Your task to perform on an android device: Show me popular videos on Youtube Image 0: 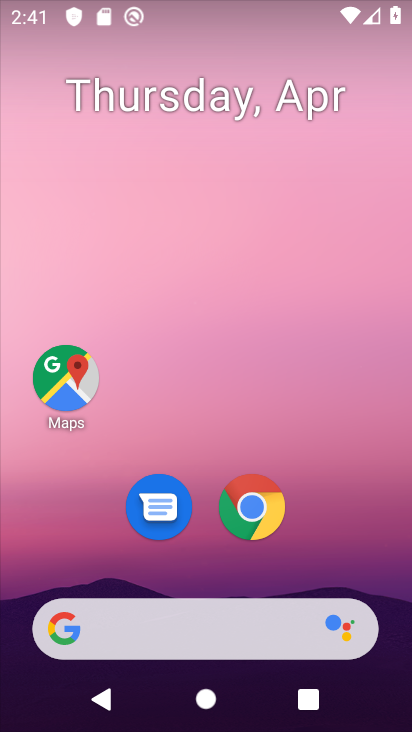
Step 0: drag from (375, 416) to (407, 117)
Your task to perform on an android device: Show me popular videos on Youtube Image 1: 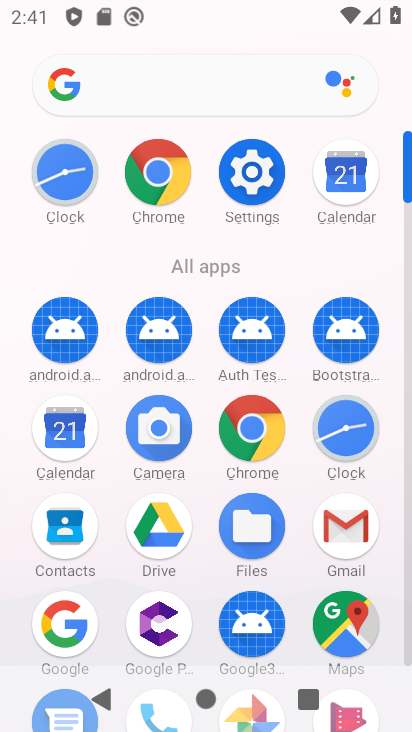
Step 1: drag from (308, 574) to (286, 223)
Your task to perform on an android device: Show me popular videos on Youtube Image 2: 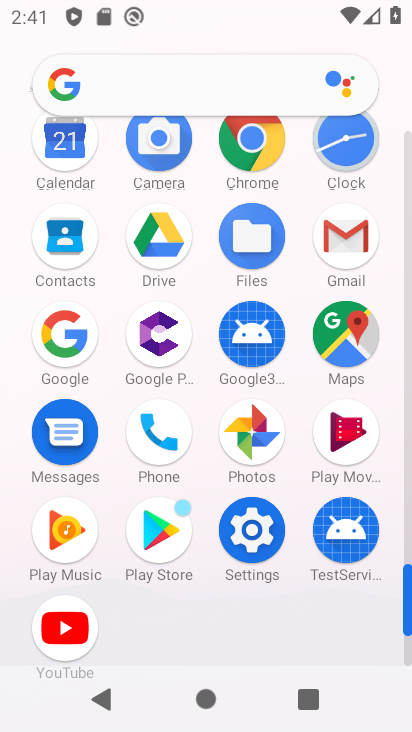
Step 2: click (68, 617)
Your task to perform on an android device: Show me popular videos on Youtube Image 3: 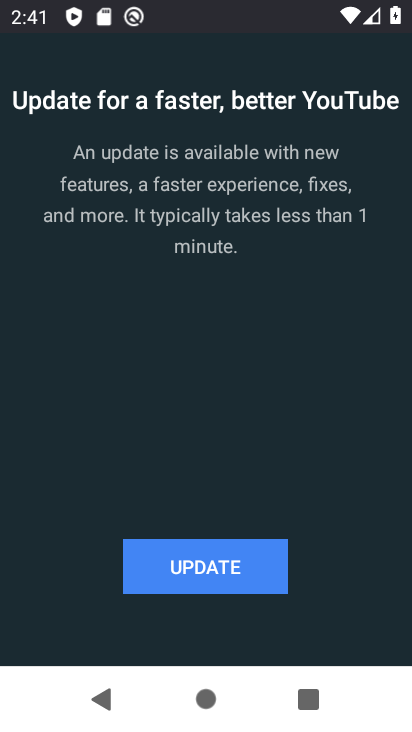
Step 3: press home button
Your task to perform on an android device: Show me popular videos on Youtube Image 4: 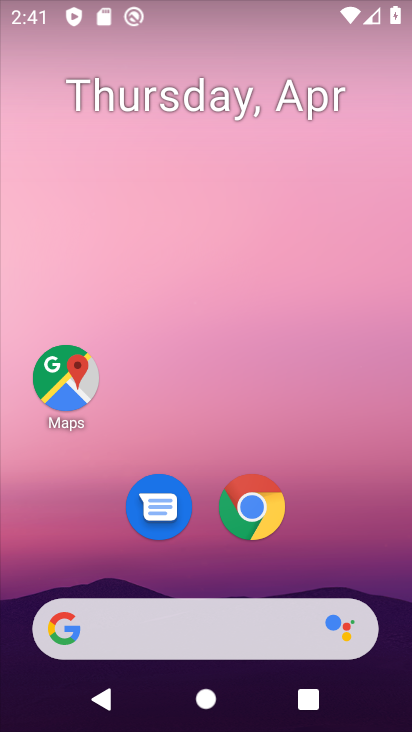
Step 4: drag from (374, 488) to (366, 200)
Your task to perform on an android device: Show me popular videos on Youtube Image 5: 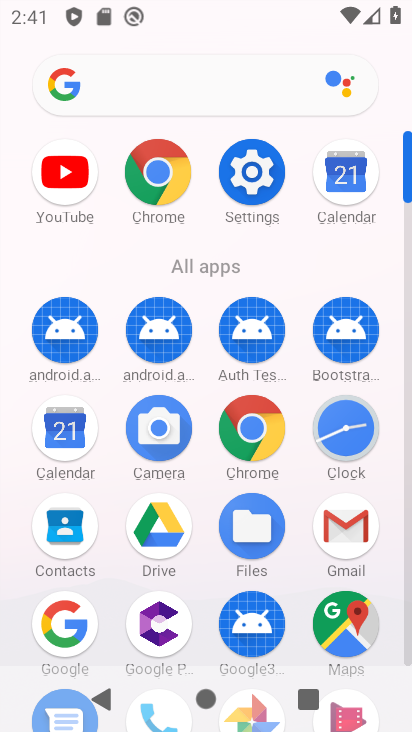
Step 5: drag from (110, 675) to (164, 265)
Your task to perform on an android device: Show me popular videos on Youtube Image 6: 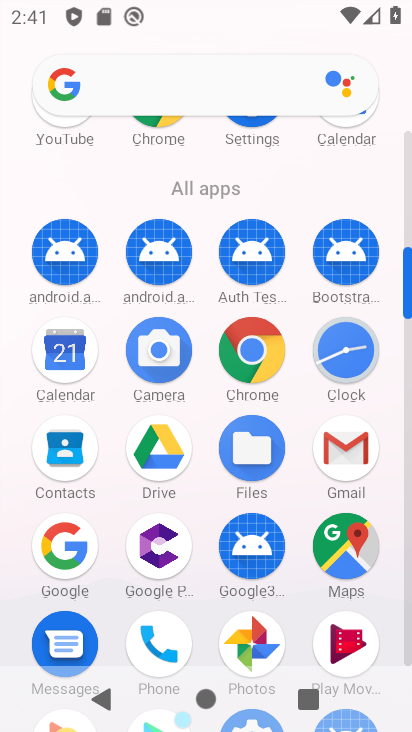
Step 6: drag from (111, 569) to (161, 278)
Your task to perform on an android device: Show me popular videos on Youtube Image 7: 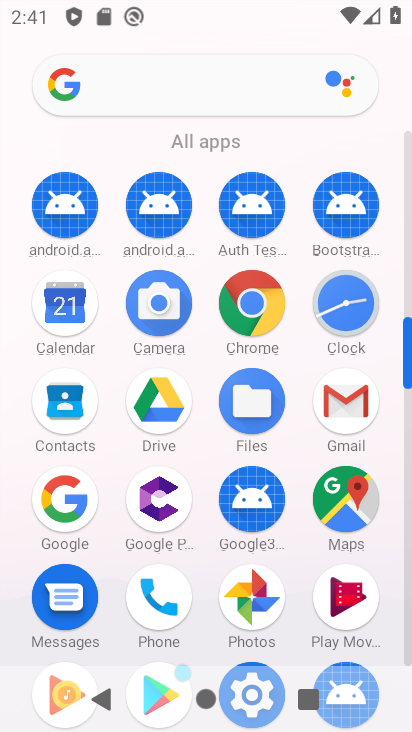
Step 7: drag from (97, 639) to (156, 250)
Your task to perform on an android device: Show me popular videos on Youtube Image 8: 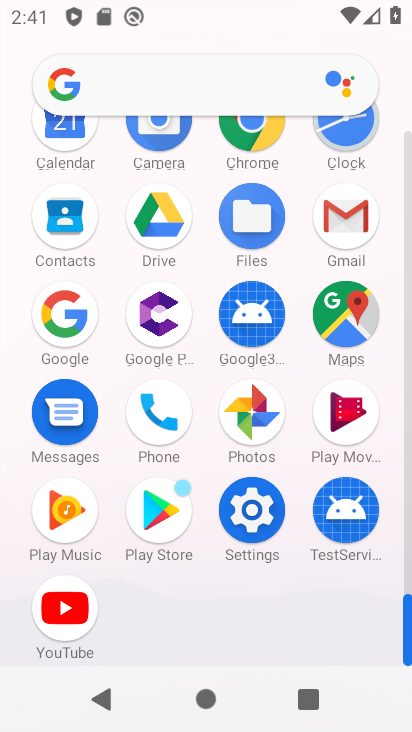
Step 8: click (70, 611)
Your task to perform on an android device: Show me popular videos on Youtube Image 9: 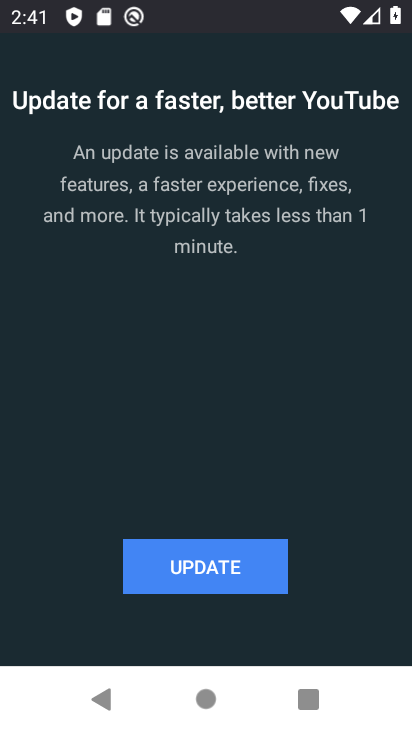
Step 9: click (227, 567)
Your task to perform on an android device: Show me popular videos on Youtube Image 10: 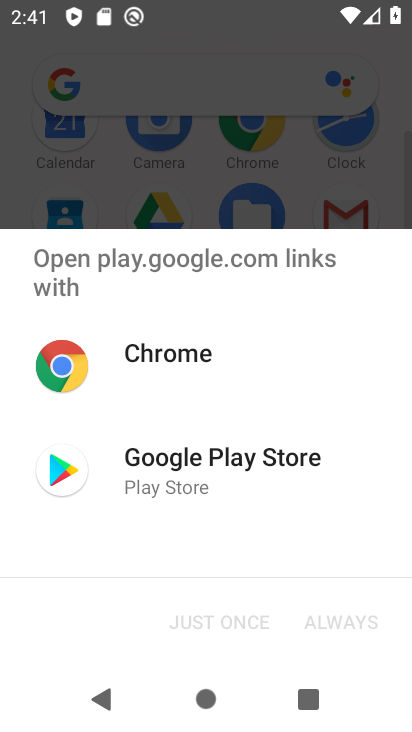
Step 10: click (211, 477)
Your task to perform on an android device: Show me popular videos on Youtube Image 11: 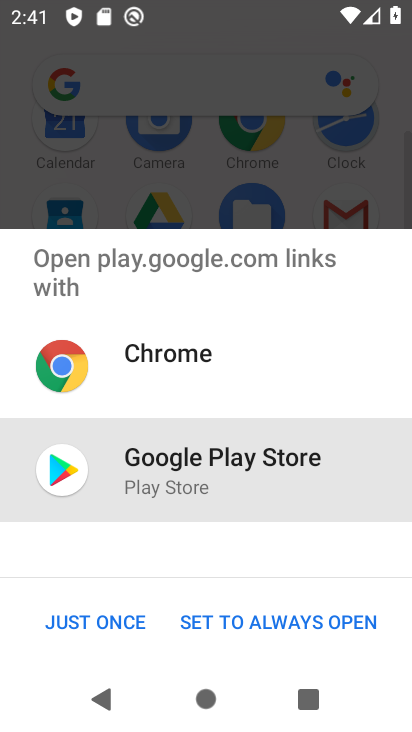
Step 11: click (77, 633)
Your task to perform on an android device: Show me popular videos on Youtube Image 12: 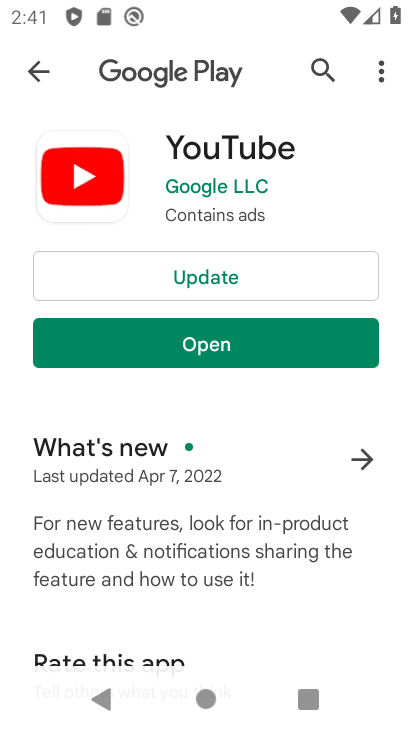
Step 12: click (243, 278)
Your task to perform on an android device: Show me popular videos on Youtube Image 13: 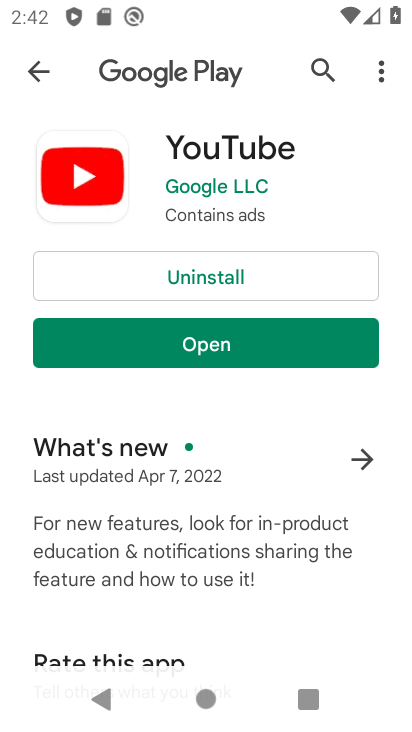
Step 13: click (272, 360)
Your task to perform on an android device: Show me popular videos on Youtube Image 14: 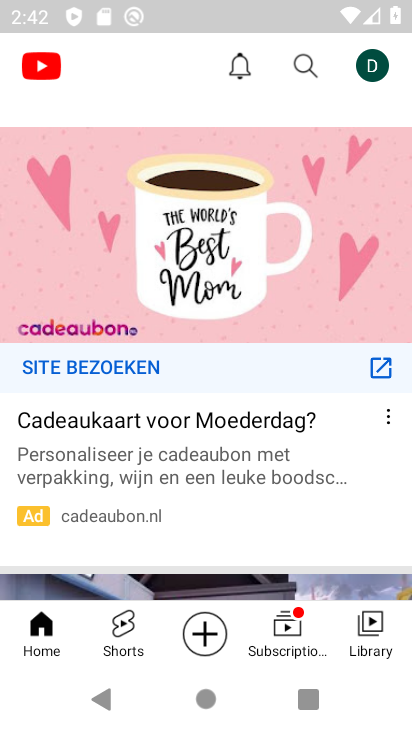
Step 14: click (376, 61)
Your task to perform on an android device: Show me popular videos on Youtube Image 15: 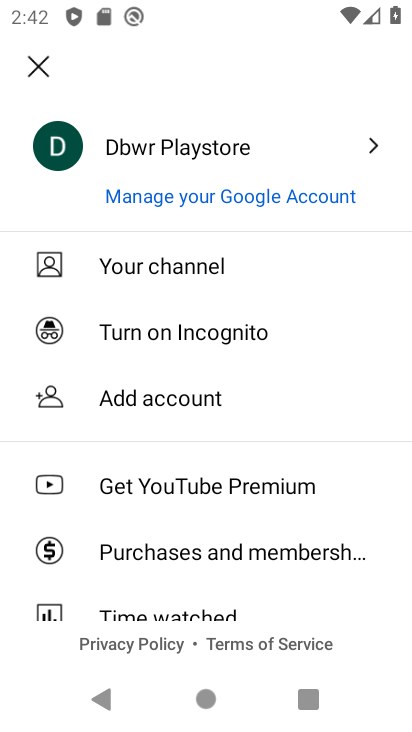
Step 15: task complete